Your task to perform on an android device: toggle data saver in the chrome app Image 0: 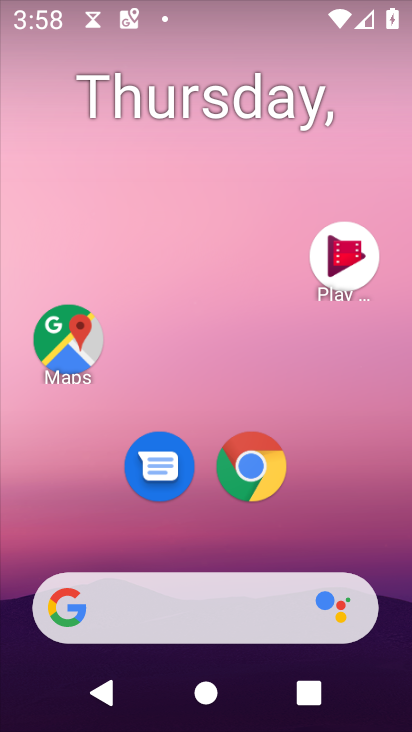
Step 0: drag from (323, 562) to (331, 3)
Your task to perform on an android device: toggle data saver in the chrome app Image 1: 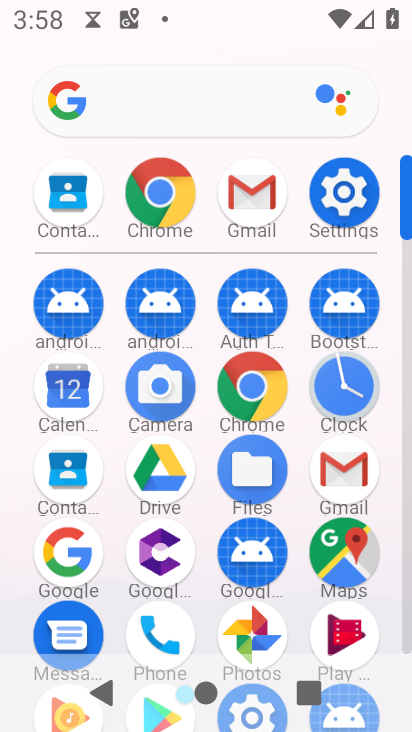
Step 1: click (270, 389)
Your task to perform on an android device: toggle data saver in the chrome app Image 2: 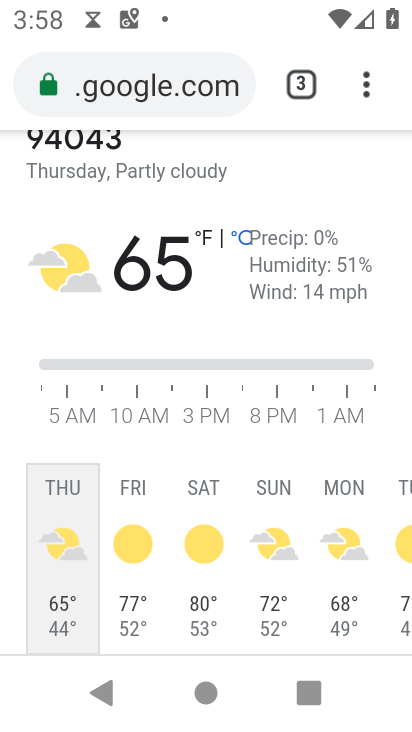
Step 2: drag from (367, 86) to (185, 527)
Your task to perform on an android device: toggle data saver in the chrome app Image 3: 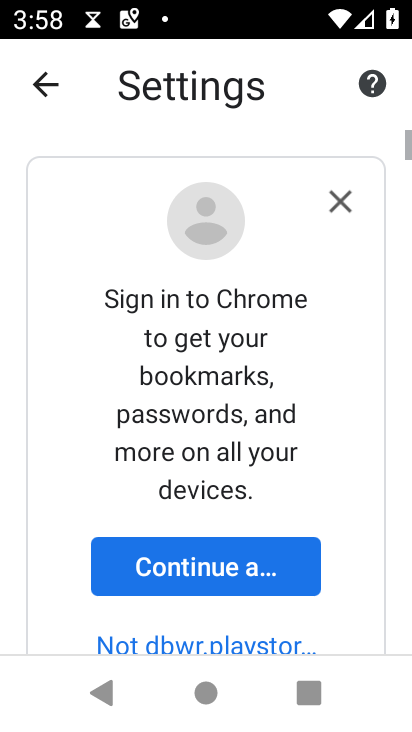
Step 3: drag from (285, 633) to (339, 49)
Your task to perform on an android device: toggle data saver in the chrome app Image 4: 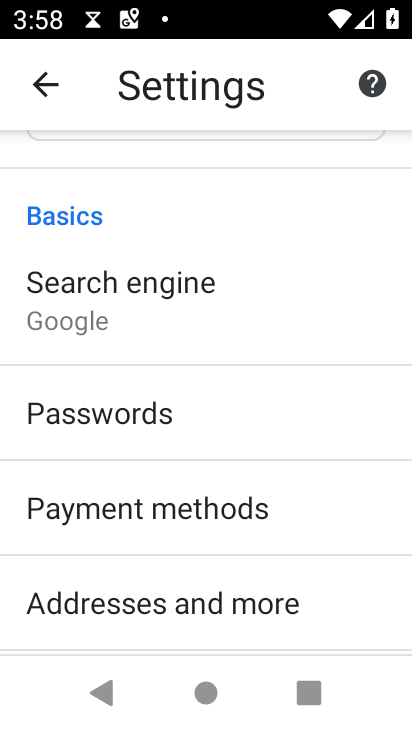
Step 4: drag from (252, 632) to (219, 119)
Your task to perform on an android device: toggle data saver in the chrome app Image 5: 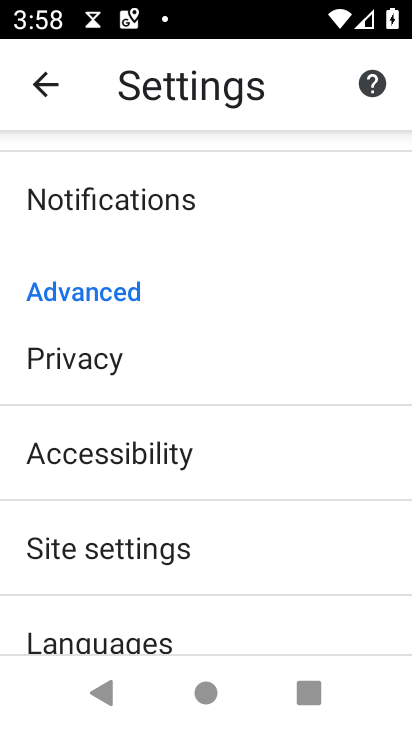
Step 5: drag from (121, 599) to (152, 223)
Your task to perform on an android device: toggle data saver in the chrome app Image 6: 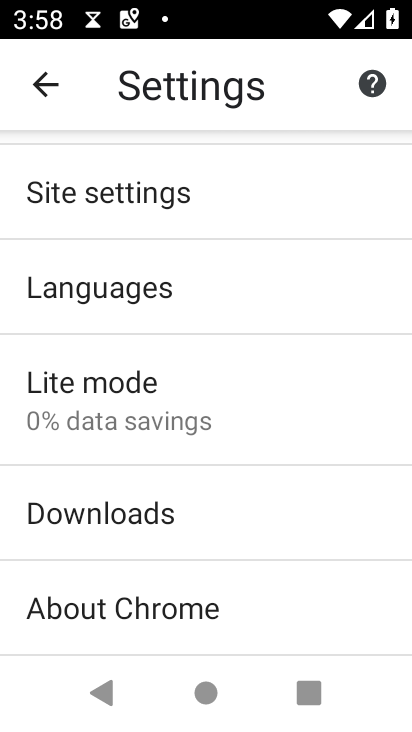
Step 6: click (147, 401)
Your task to perform on an android device: toggle data saver in the chrome app Image 7: 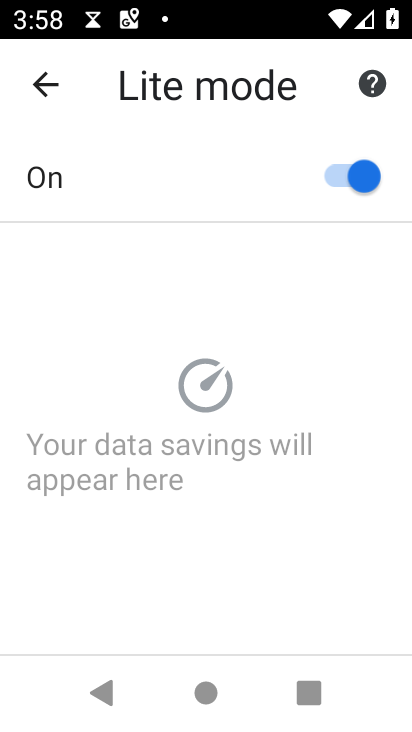
Step 7: click (357, 168)
Your task to perform on an android device: toggle data saver in the chrome app Image 8: 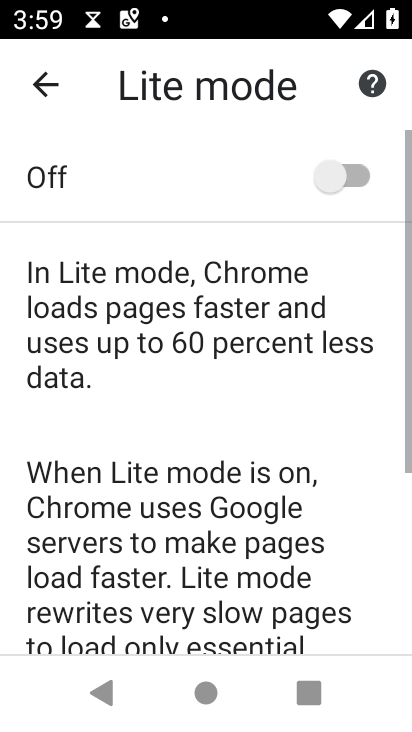
Step 8: task complete